Your task to perform on an android device: remove spam from my inbox in the gmail app Image 0: 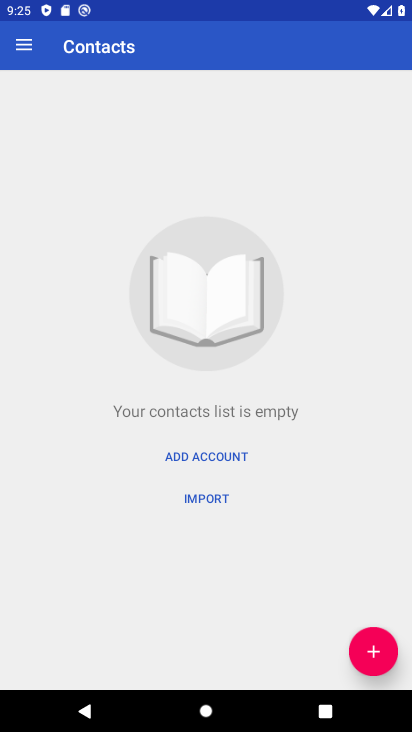
Step 0: press home button
Your task to perform on an android device: remove spam from my inbox in the gmail app Image 1: 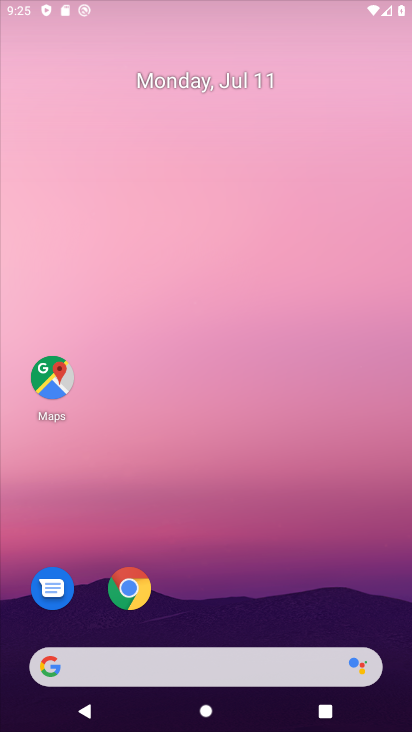
Step 1: drag from (179, 652) to (254, 76)
Your task to perform on an android device: remove spam from my inbox in the gmail app Image 2: 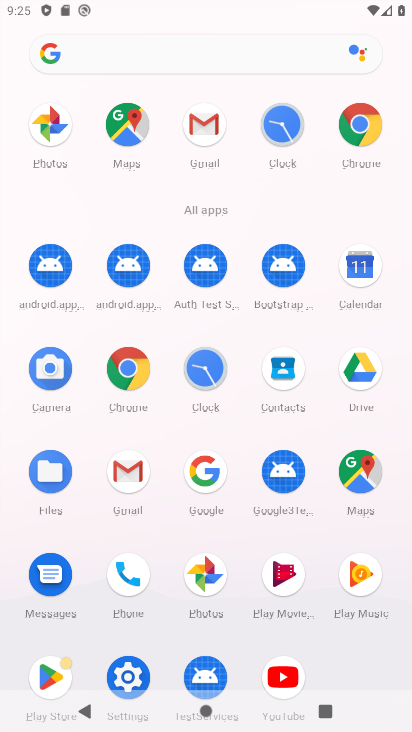
Step 2: click (135, 477)
Your task to perform on an android device: remove spam from my inbox in the gmail app Image 3: 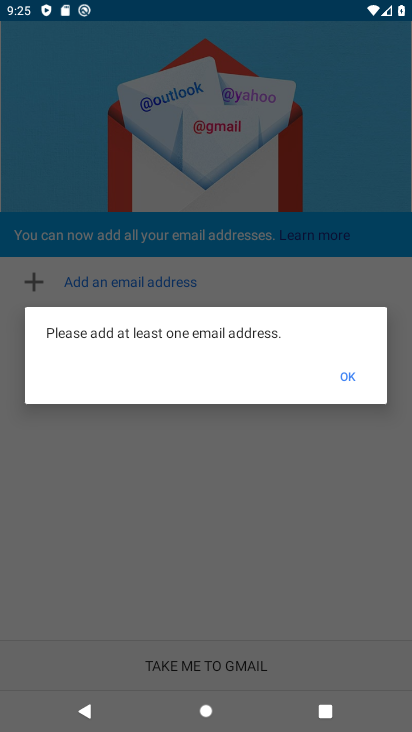
Step 3: task complete